Your task to perform on an android device: turn on translation in the chrome app Image 0: 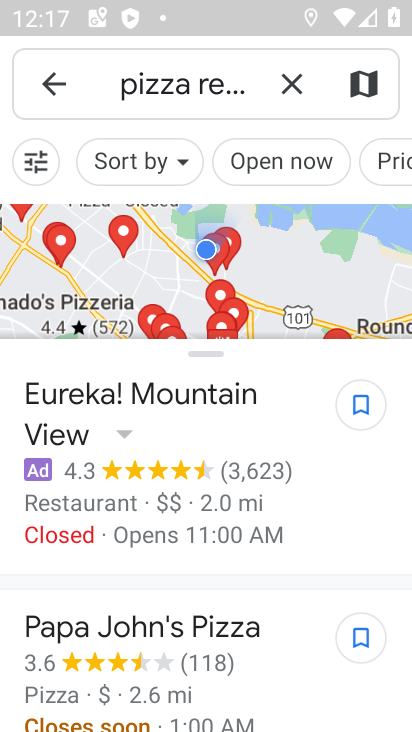
Step 0: press back button
Your task to perform on an android device: turn on translation in the chrome app Image 1: 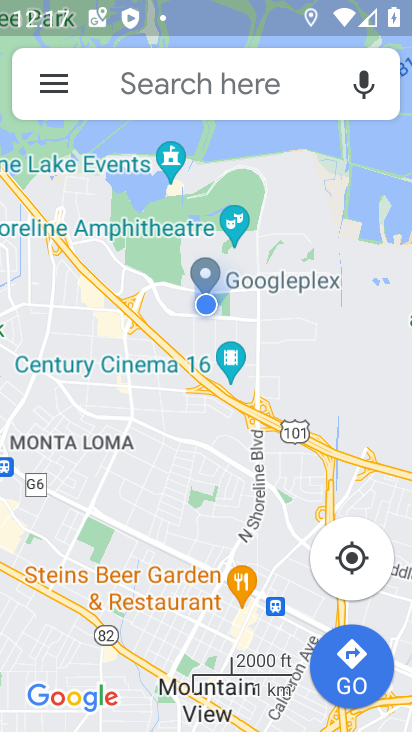
Step 1: press back button
Your task to perform on an android device: turn on translation in the chrome app Image 2: 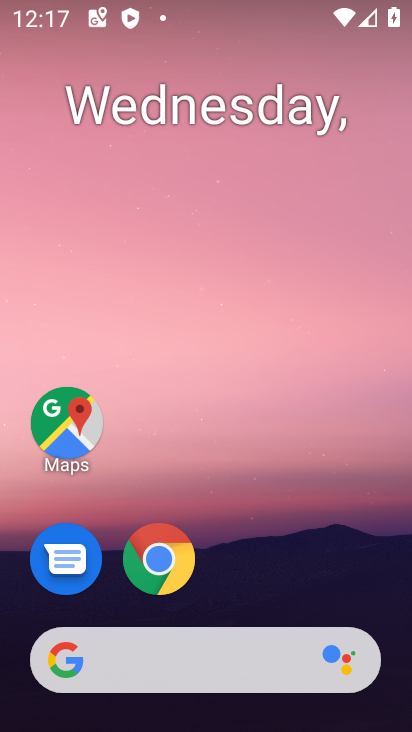
Step 2: click (158, 562)
Your task to perform on an android device: turn on translation in the chrome app Image 3: 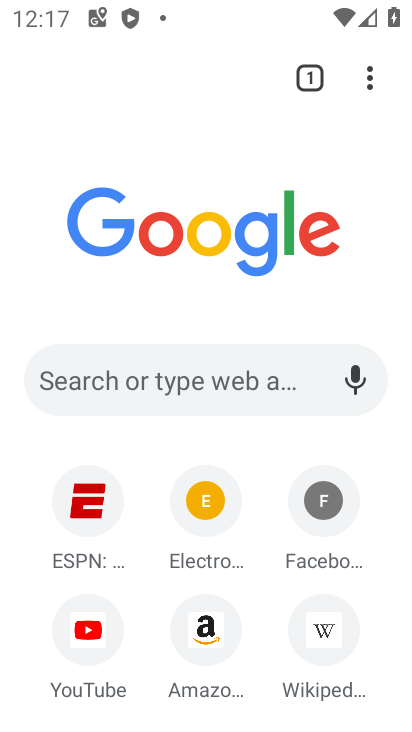
Step 3: drag from (370, 83) to (130, 657)
Your task to perform on an android device: turn on translation in the chrome app Image 4: 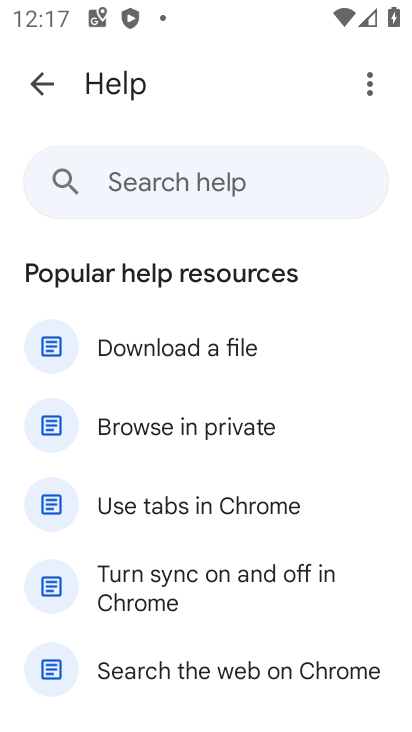
Step 4: click (43, 82)
Your task to perform on an android device: turn on translation in the chrome app Image 5: 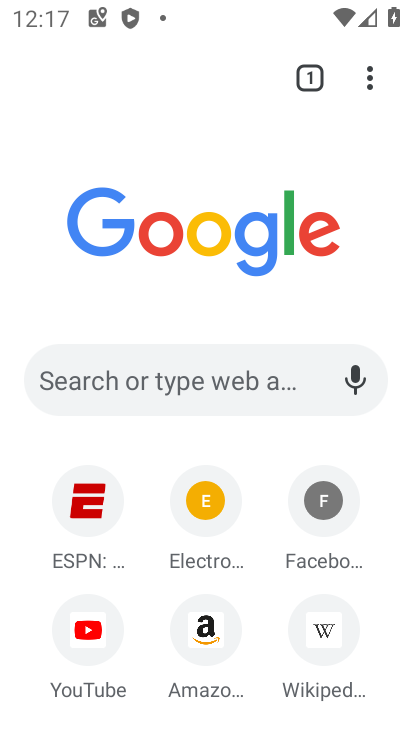
Step 5: drag from (373, 74) to (129, 617)
Your task to perform on an android device: turn on translation in the chrome app Image 6: 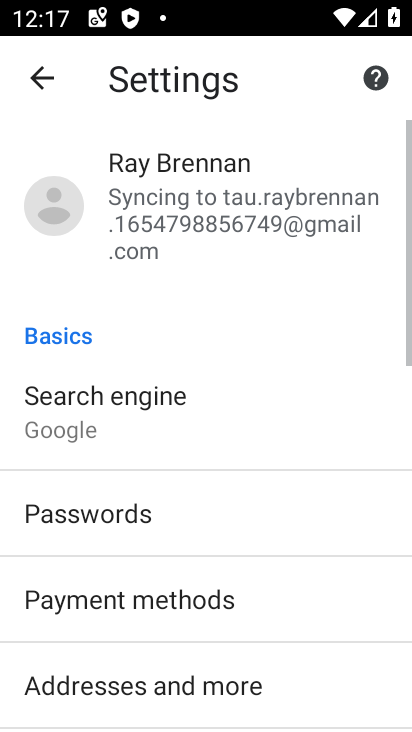
Step 6: drag from (221, 620) to (331, 42)
Your task to perform on an android device: turn on translation in the chrome app Image 7: 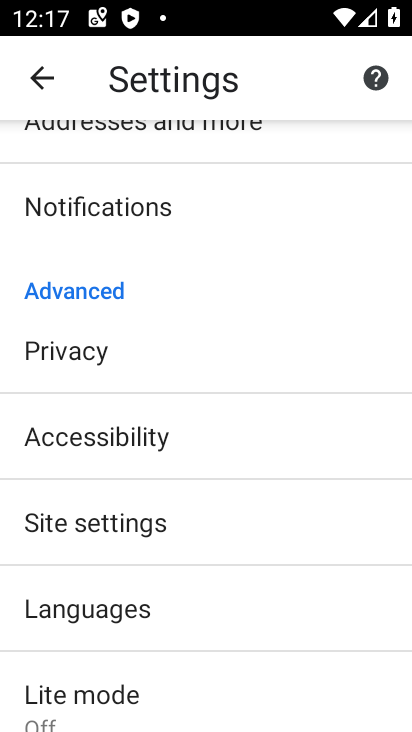
Step 7: click (84, 620)
Your task to perform on an android device: turn on translation in the chrome app Image 8: 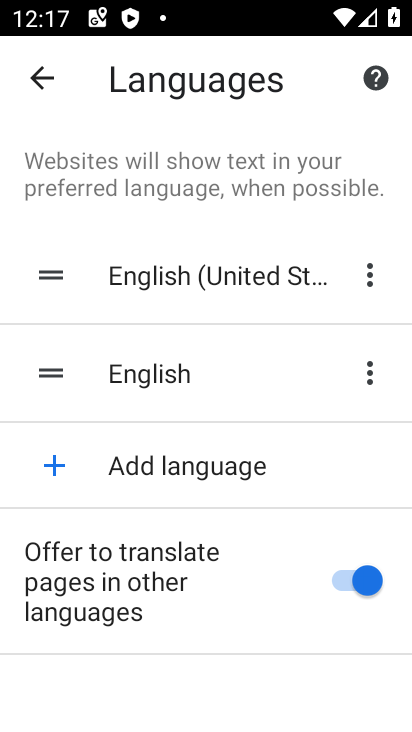
Step 8: task complete